Your task to perform on an android device: allow notifications from all sites in the chrome app Image 0: 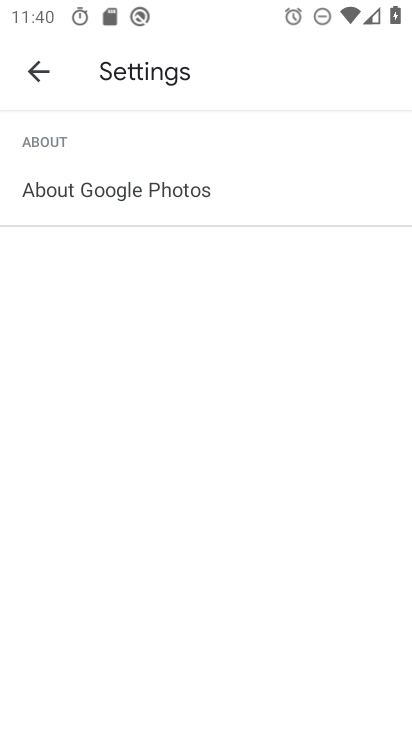
Step 0: press home button
Your task to perform on an android device: allow notifications from all sites in the chrome app Image 1: 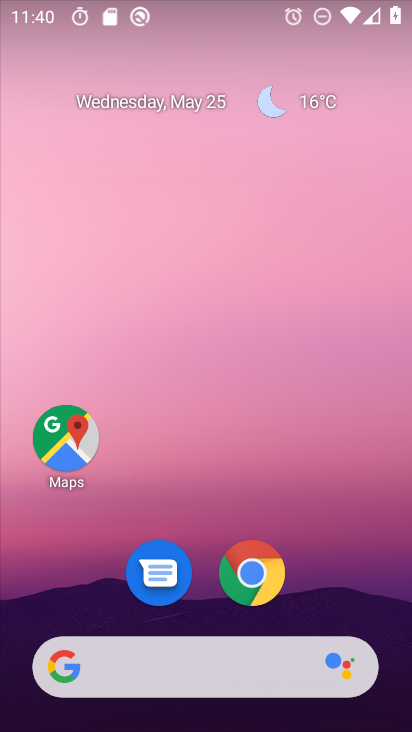
Step 1: click (259, 568)
Your task to perform on an android device: allow notifications from all sites in the chrome app Image 2: 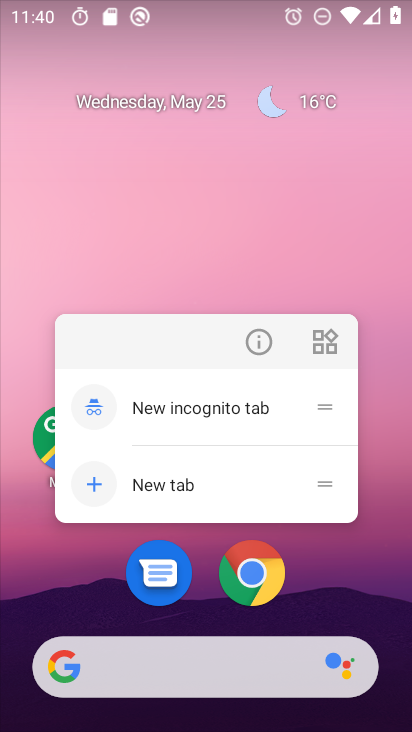
Step 2: click (257, 573)
Your task to perform on an android device: allow notifications from all sites in the chrome app Image 3: 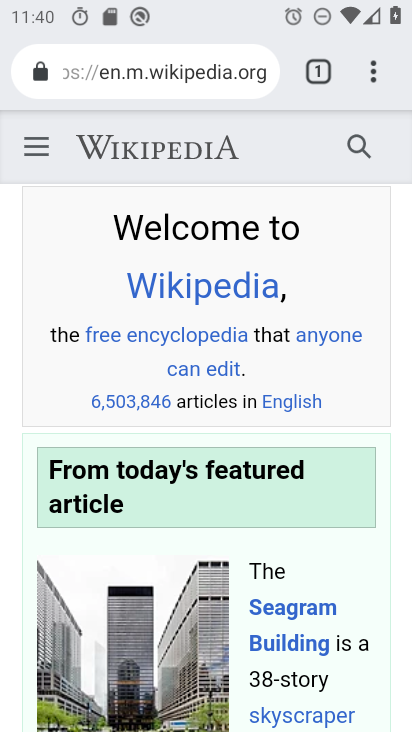
Step 3: click (376, 73)
Your task to perform on an android device: allow notifications from all sites in the chrome app Image 4: 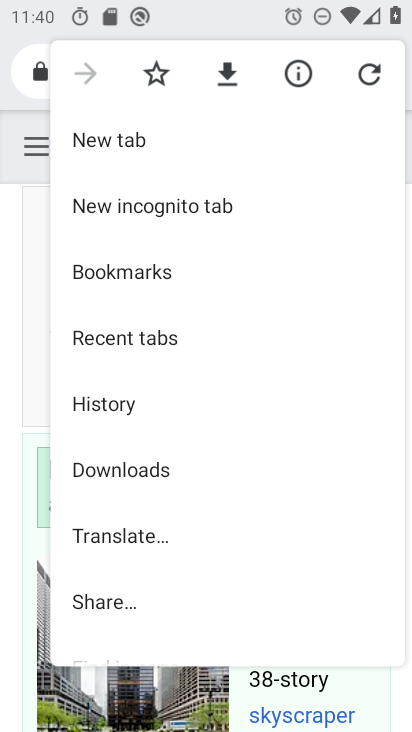
Step 4: drag from (191, 533) to (199, 141)
Your task to perform on an android device: allow notifications from all sites in the chrome app Image 5: 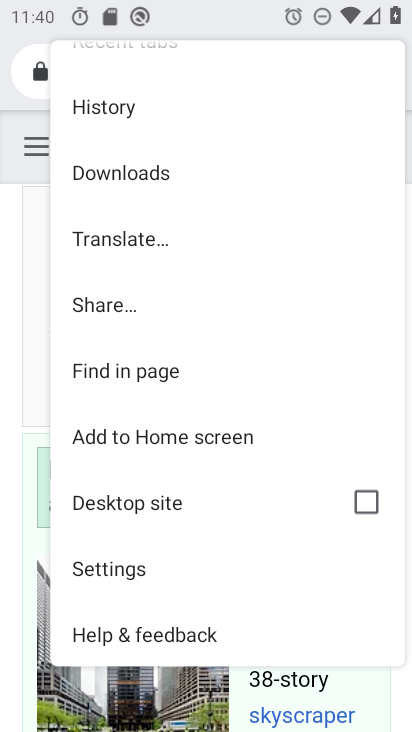
Step 5: click (137, 571)
Your task to perform on an android device: allow notifications from all sites in the chrome app Image 6: 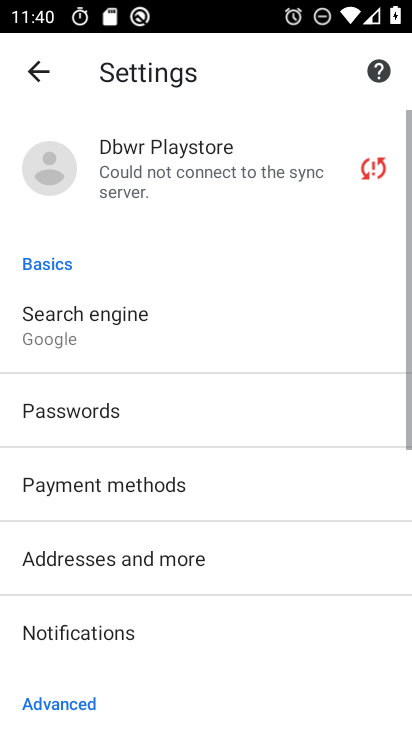
Step 6: drag from (186, 582) to (193, 187)
Your task to perform on an android device: allow notifications from all sites in the chrome app Image 7: 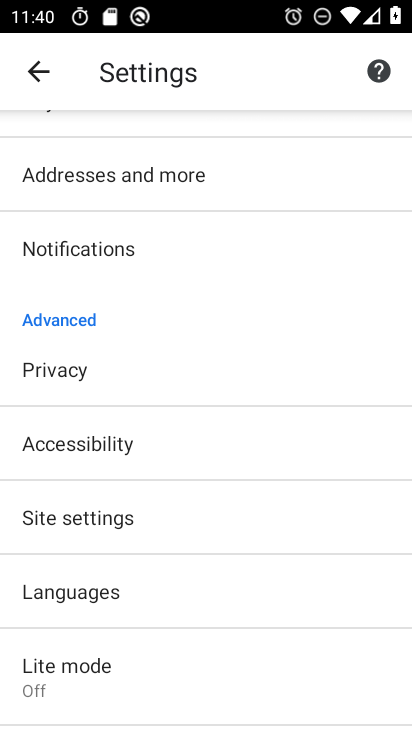
Step 7: click (101, 518)
Your task to perform on an android device: allow notifications from all sites in the chrome app Image 8: 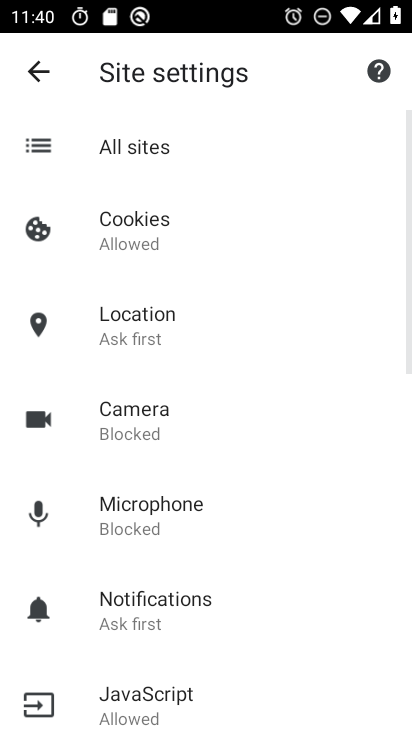
Step 8: drag from (234, 553) to (249, 336)
Your task to perform on an android device: allow notifications from all sites in the chrome app Image 9: 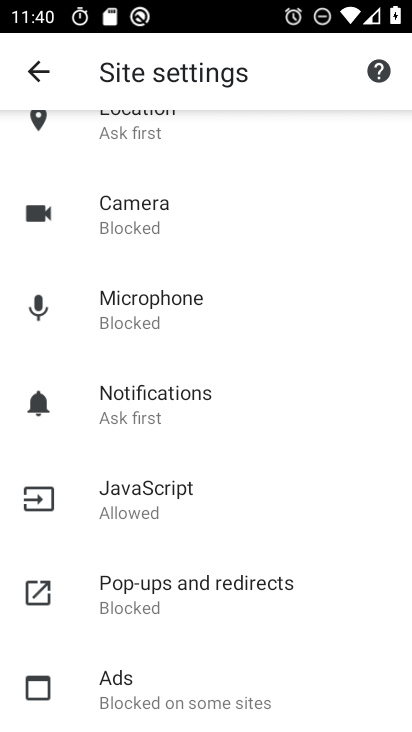
Step 9: click (161, 393)
Your task to perform on an android device: allow notifications from all sites in the chrome app Image 10: 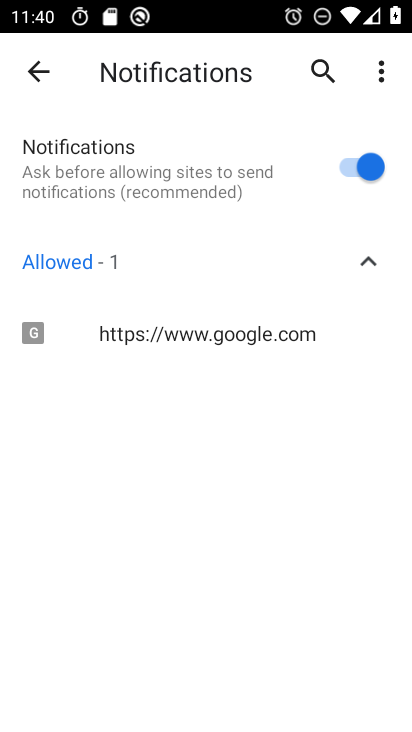
Step 10: task complete